Your task to perform on an android device: turn off picture-in-picture Image 0: 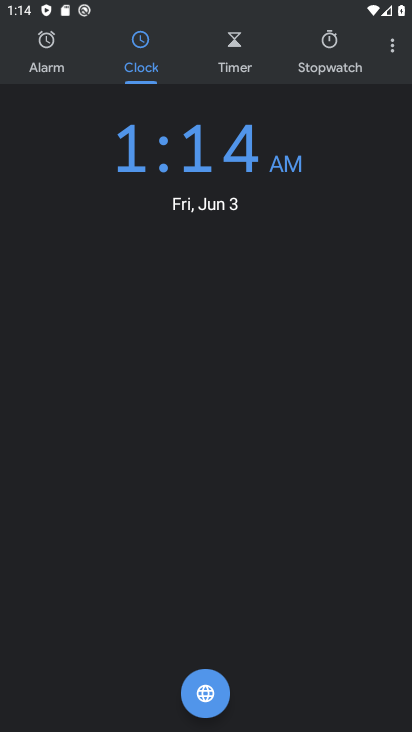
Step 0: press home button
Your task to perform on an android device: turn off picture-in-picture Image 1: 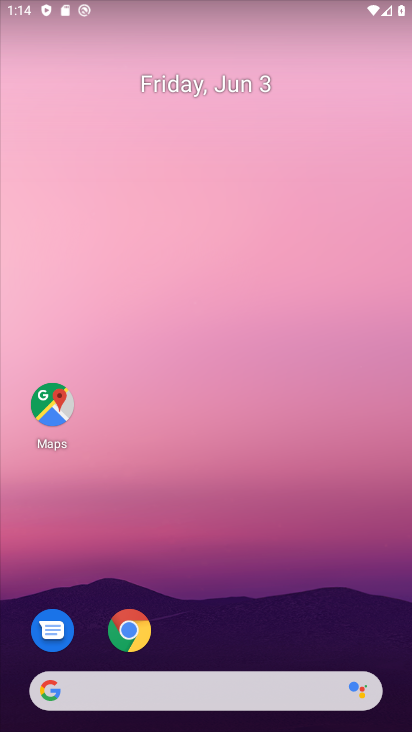
Step 1: drag from (223, 729) to (215, 101)
Your task to perform on an android device: turn off picture-in-picture Image 2: 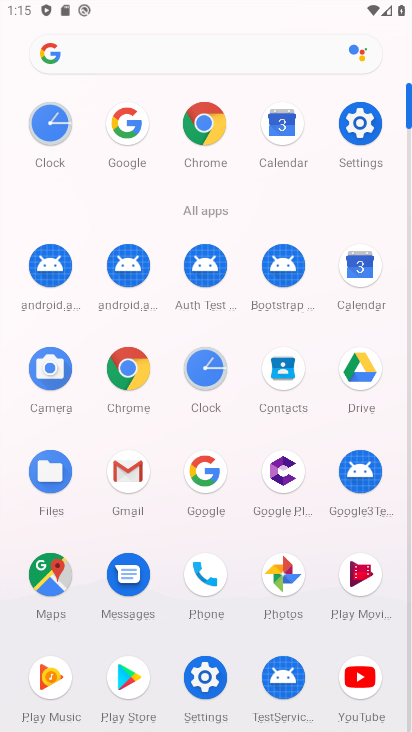
Step 2: click (359, 118)
Your task to perform on an android device: turn off picture-in-picture Image 3: 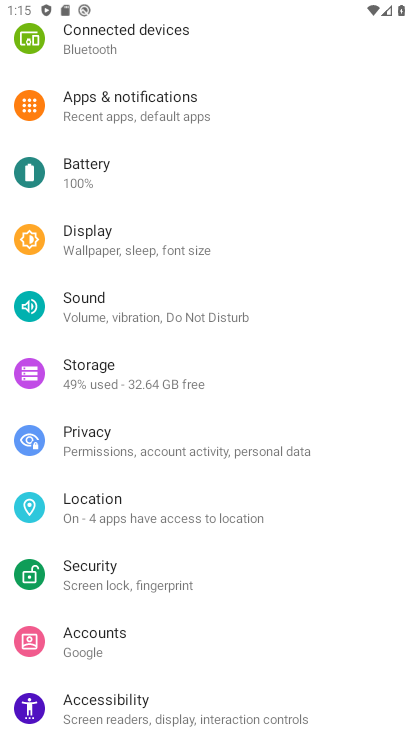
Step 3: click (152, 98)
Your task to perform on an android device: turn off picture-in-picture Image 4: 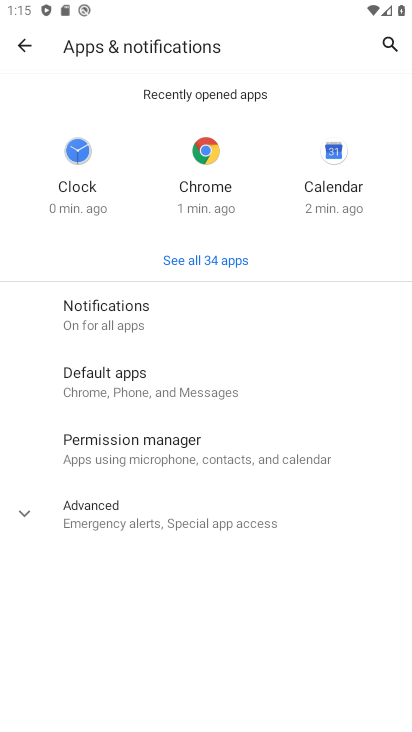
Step 4: click (84, 511)
Your task to perform on an android device: turn off picture-in-picture Image 5: 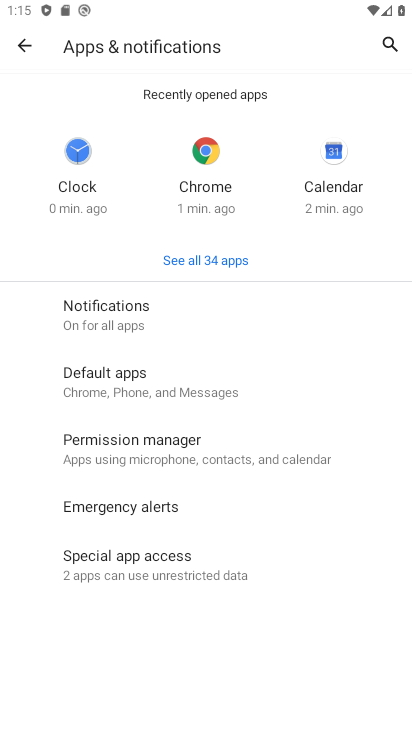
Step 5: click (136, 572)
Your task to perform on an android device: turn off picture-in-picture Image 6: 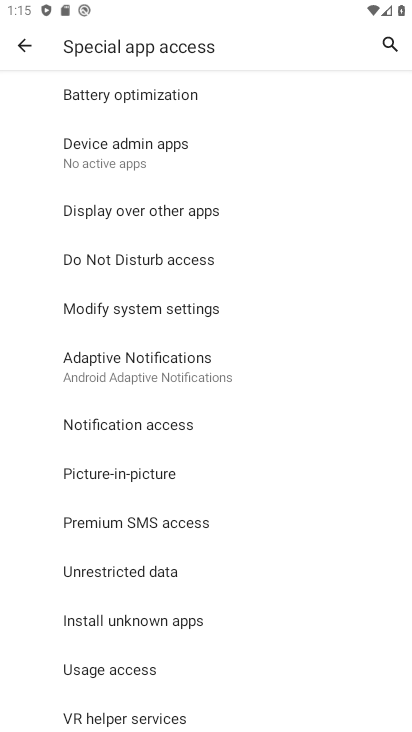
Step 6: drag from (168, 686) to (172, 498)
Your task to perform on an android device: turn off picture-in-picture Image 7: 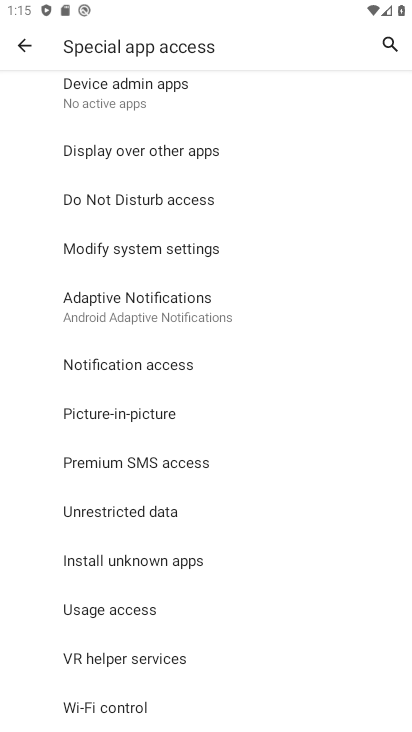
Step 7: click (139, 410)
Your task to perform on an android device: turn off picture-in-picture Image 8: 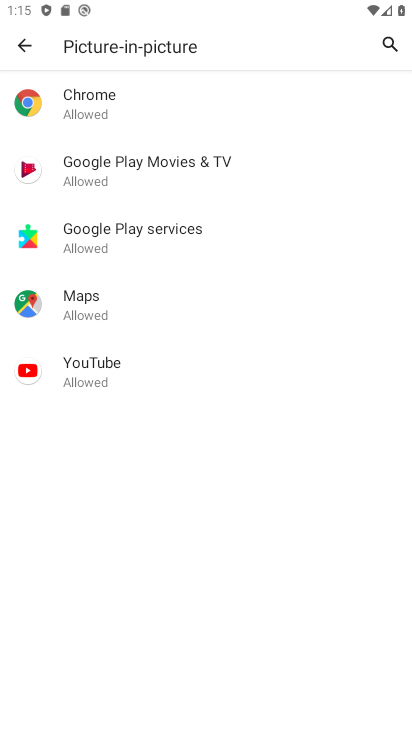
Step 8: click (102, 374)
Your task to perform on an android device: turn off picture-in-picture Image 9: 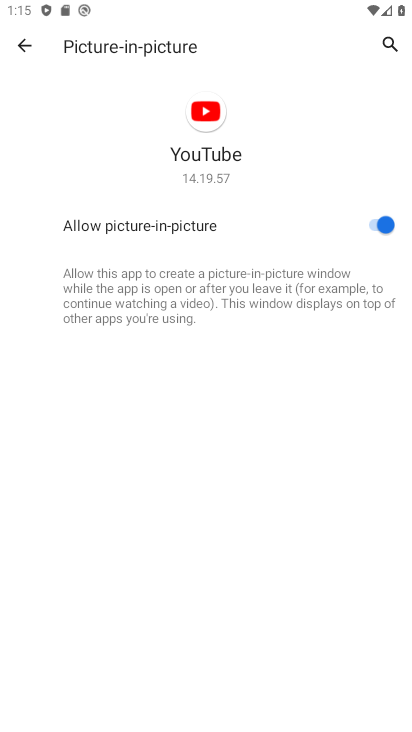
Step 9: click (373, 222)
Your task to perform on an android device: turn off picture-in-picture Image 10: 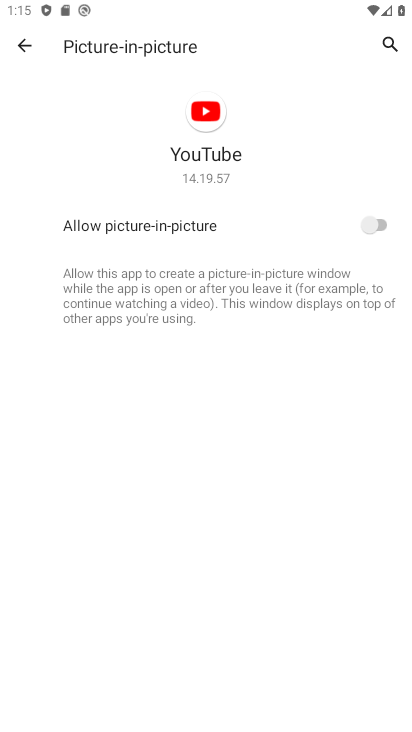
Step 10: task complete